Your task to perform on an android device: Go to ESPN.com Image 0: 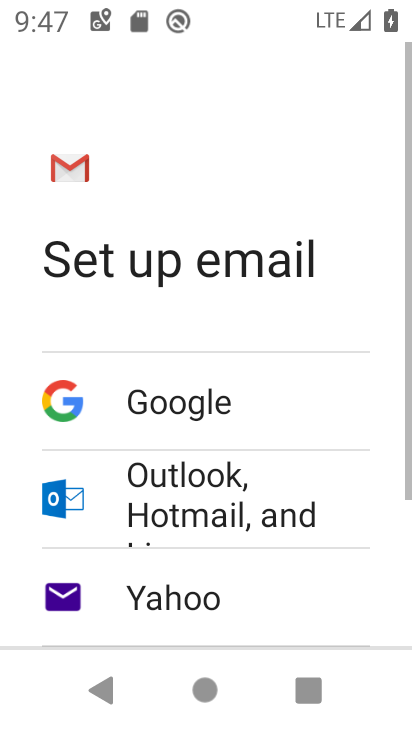
Step 0: press home button
Your task to perform on an android device: Go to ESPN.com Image 1: 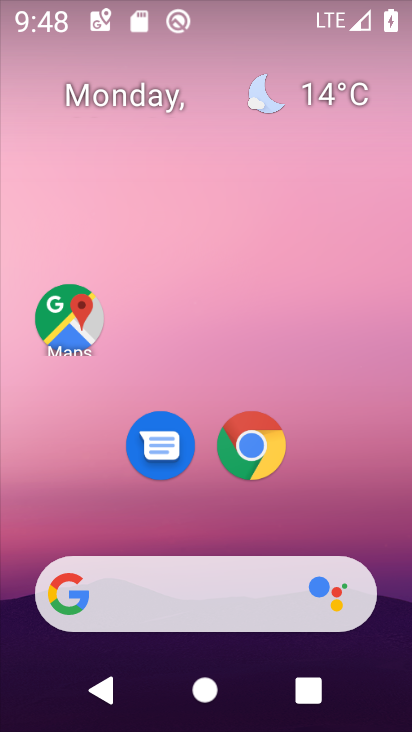
Step 1: click (249, 437)
Your task to perform on an android device: Go to ESPN.com Image 2: 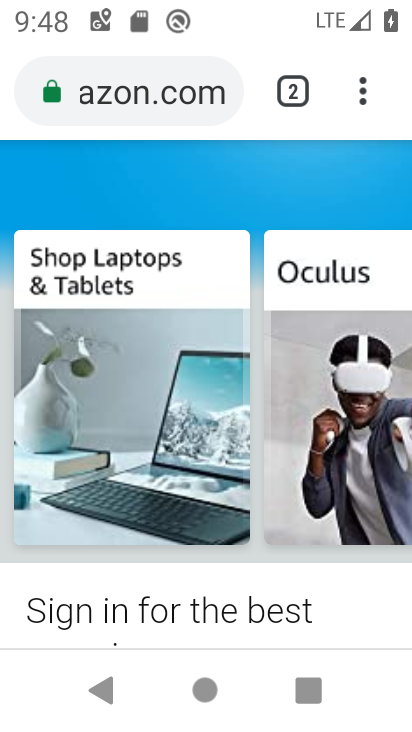
Step 2: click (292, 94)
Your task to perform on an android device: Go to ESPN.com Image 3: 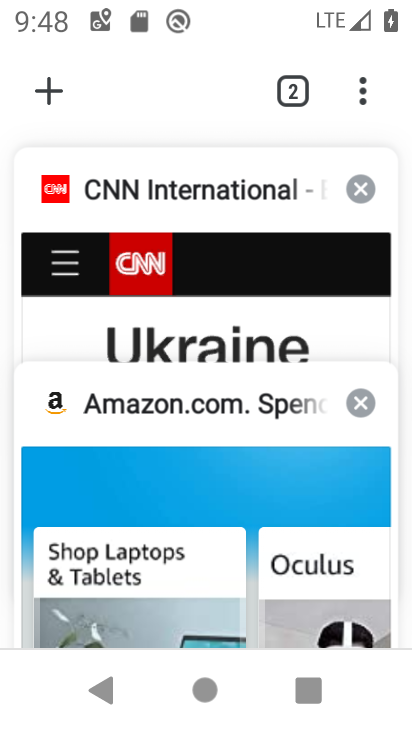
Step 3: click (357, 184)
Your task to perform on an android device: Go to ESPN.com Image 4: 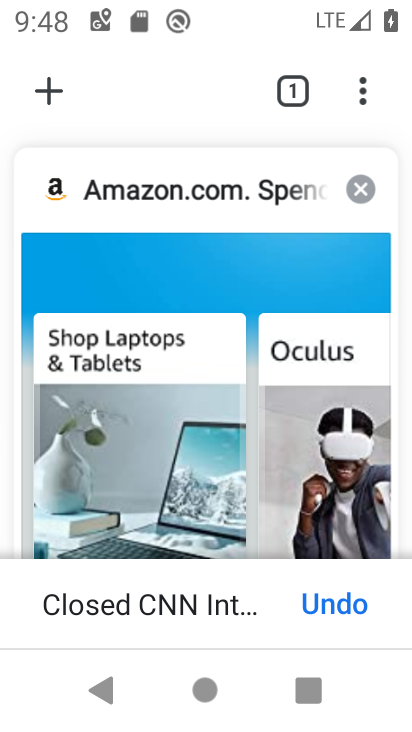
Step 4: click (357, 184)
Your task to perform on an android device: Go to ESPN.com Image 5: 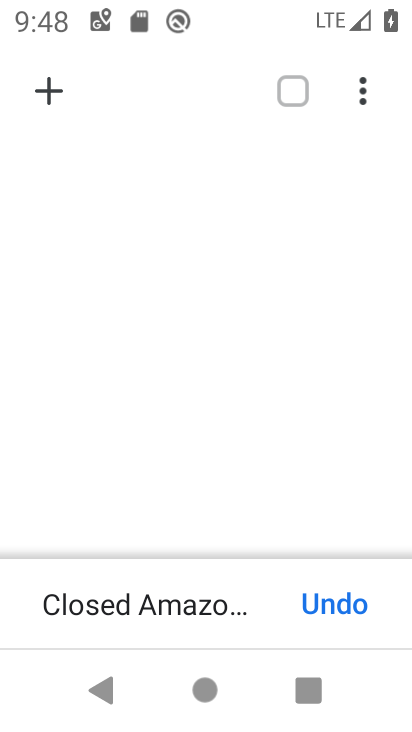
Step 5: click (57, 90)
Your task to perform on an android device: Go to ESPN.com Image 6: 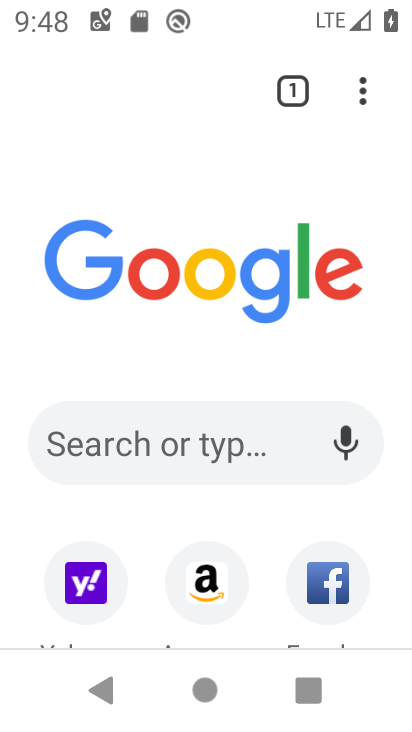
Step 6: drag from (251, 536) to (314, 125)
Your task to perform on an android device: Go to ESPN.com Image 7: 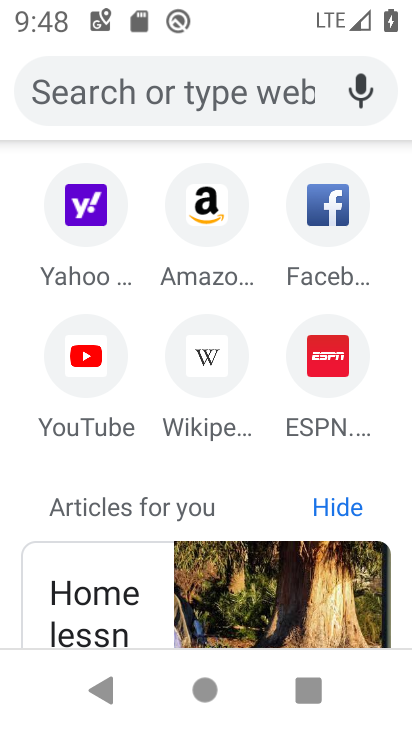
Step 7: click (326, 357)
Your task to perform on an android device: Go to ESPN.com Image 8: 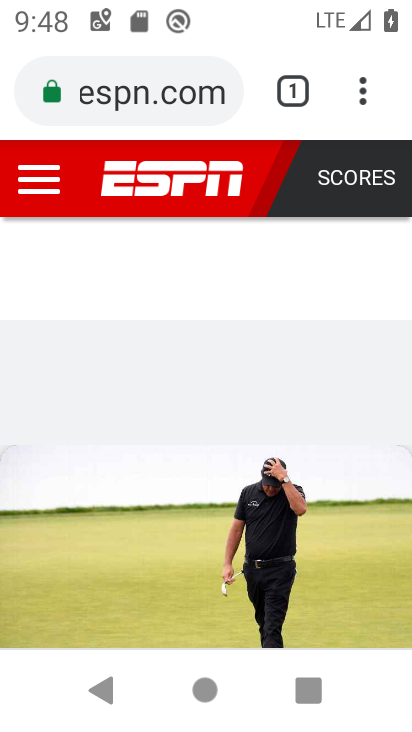
Step 8: task complete